Your task to perform on an android device: Play the last video I watched on Youtube Image 0: 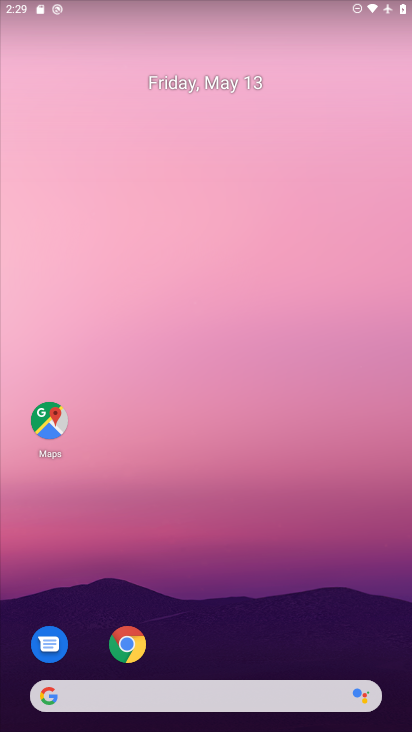
Step 0: drag from (340, 610) to (212, 10)
Your task to perform on an android device: Play the last video I watched on Youtube Image 1: 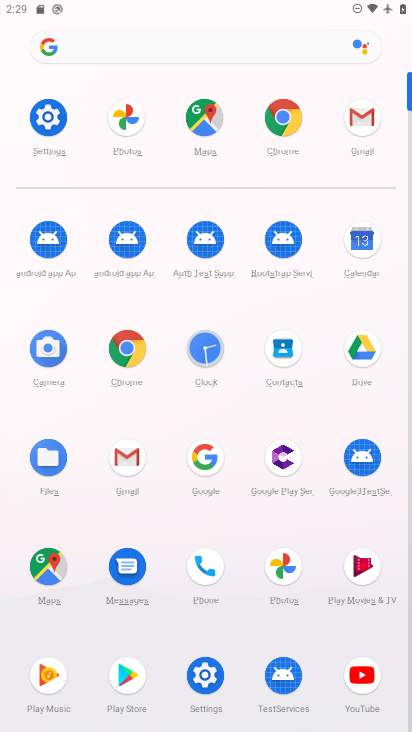
Step 1: click (369, 672)
Your task to perform on an android device: Play the last video I watched on Youtube Image 2: 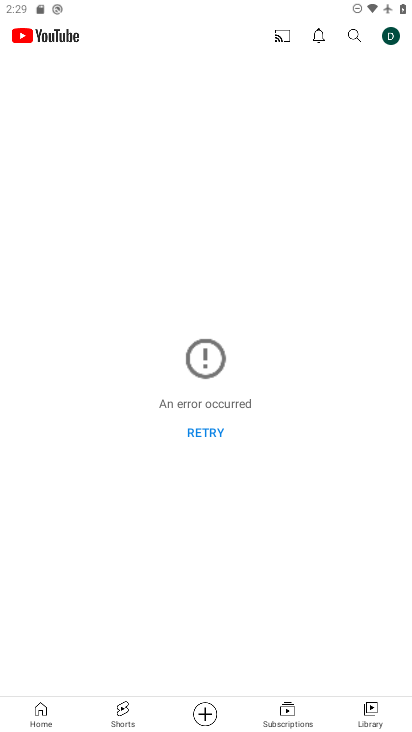
Step 2: task complete